Your task to perform on an android device: Open Google Chrome Image 0: 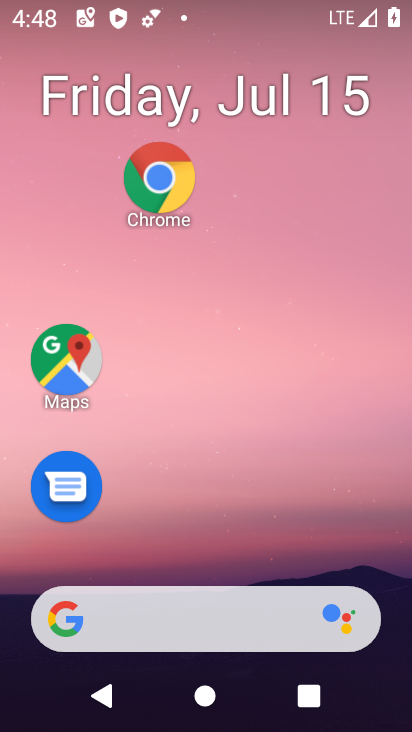
Step 0: click (162, 179)
Your task to perform on an android device: Open Google Chrome Image 1: 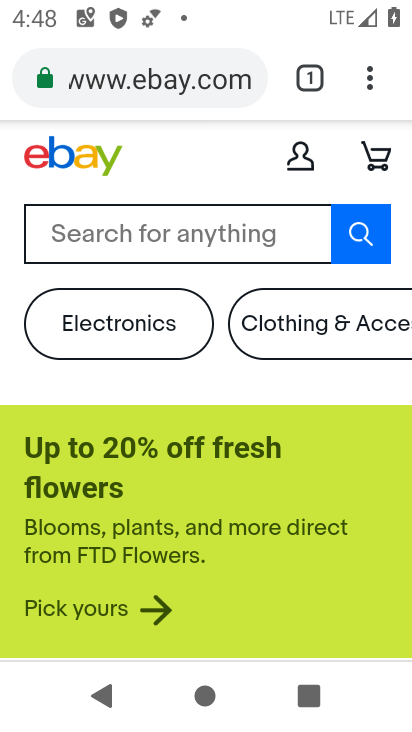
Step 1: task complete